Your task to perform on an android device: turn pop-ups off in chrome Image 0: 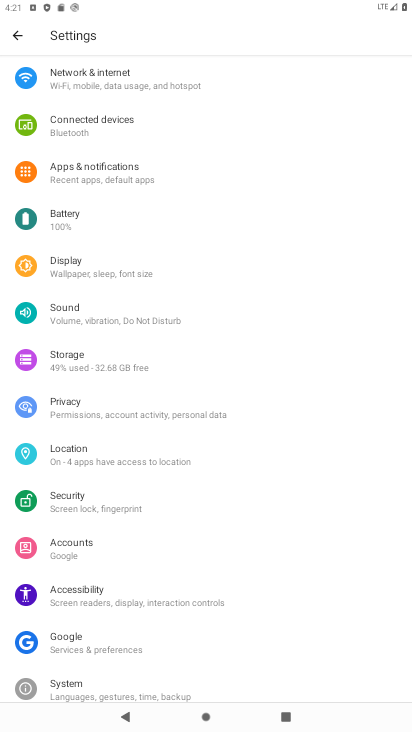
Step 0: press home button
Your task to perform on an android device: turn pop-ups off in chrome Image 1: 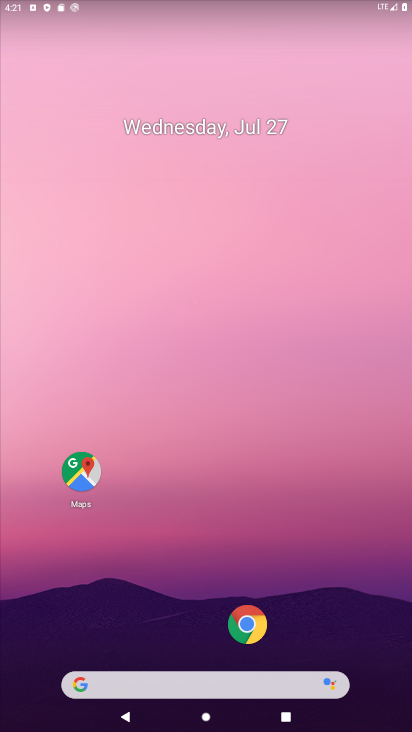
Step 1: click (257, 615)
Your task to perform on an android device: turn pop-ups off in chrome Image 2: 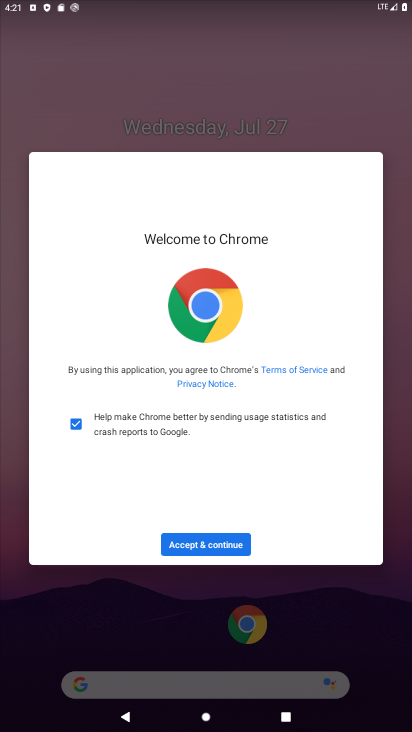
Step 2: click (205, 536)
Your task to perform on an android device: turn pop-ups off in chrome Image 3: 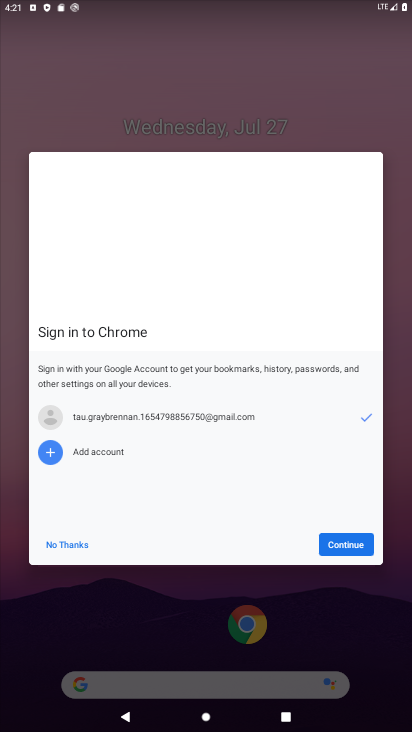
Step 3: click (342, 548)
Your task to perform on an android device: turn pop-ups off in chrome Image 4: 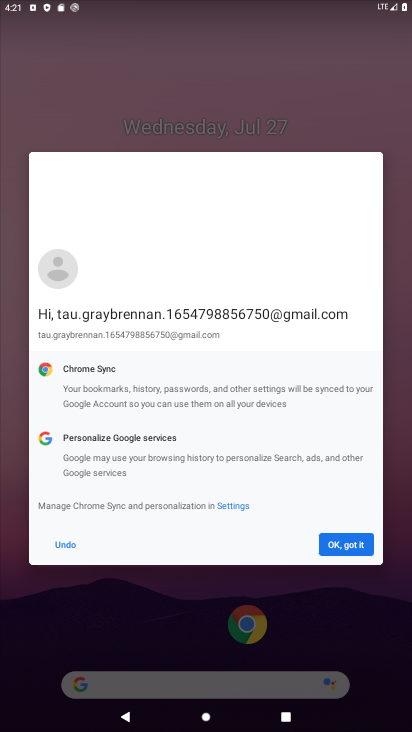
Step 4: click (342, 548)
Your task to perform on an android device: turn pop-ups off in chrome Image 5: 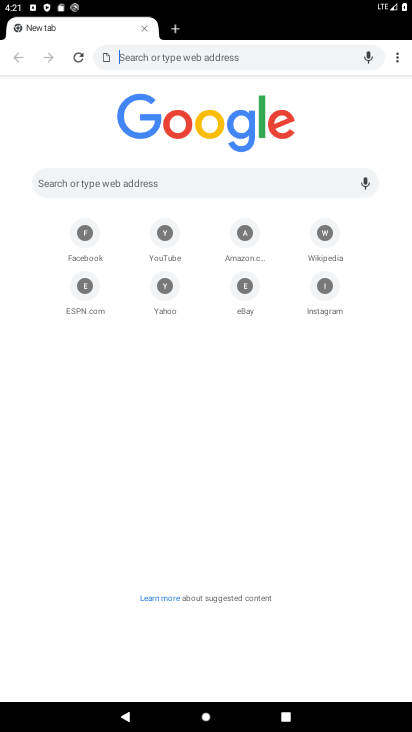
Step 5: click (402, 53)
Your task to perform on an android device: turn pop-ups off in chrome Image 6: 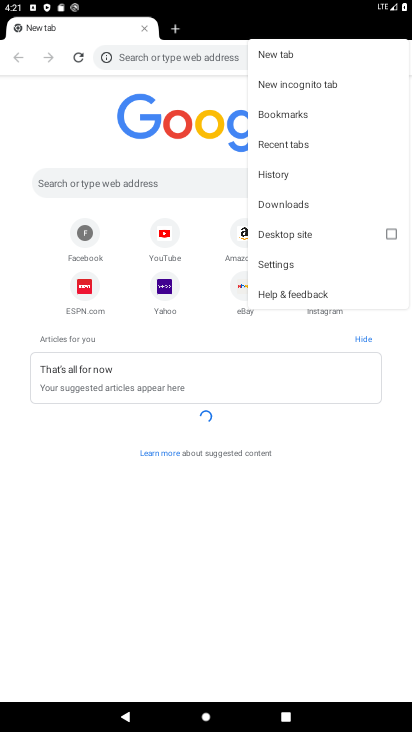
Step 6: click (295, 258)
Your task to perform on an android device: turn pop-ups off in chrome Image 7: 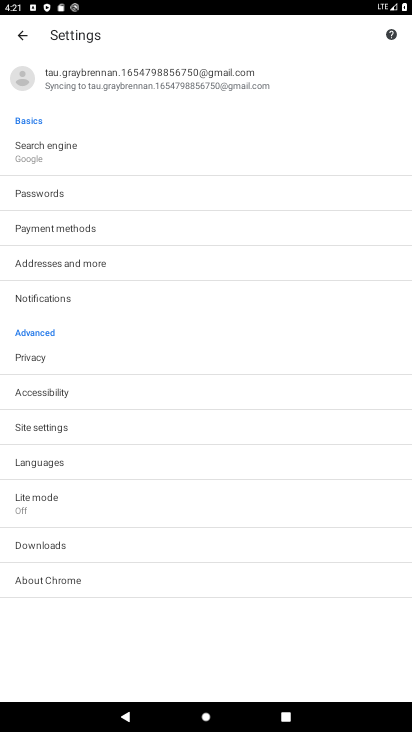
Step 7: click (85, 425)
Your task to perform on an android device: turn pop-ups off in chrome Image 8: 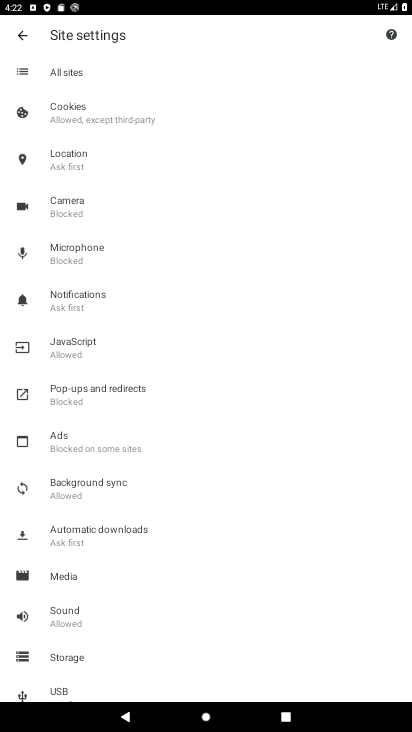
Step 8: click (146, 406)
Your task to perform on an android device: turn pop-ups off in chrome Image 9: 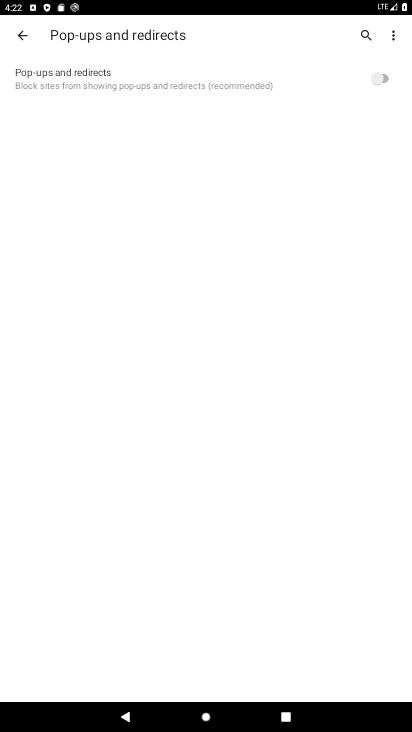
Step 9: task complete